Your task to perform on an android device: Open calendar and show me the third week of next month Image 0: 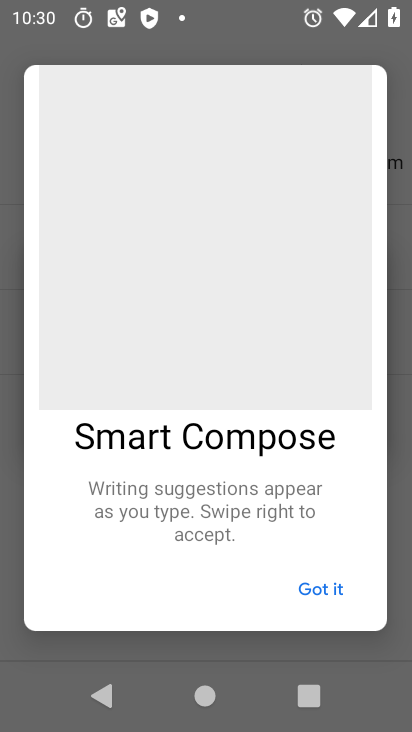
Step 0: press home button
Your task to perform on an android device: Open calendar and show me the third week of next month Image 1: 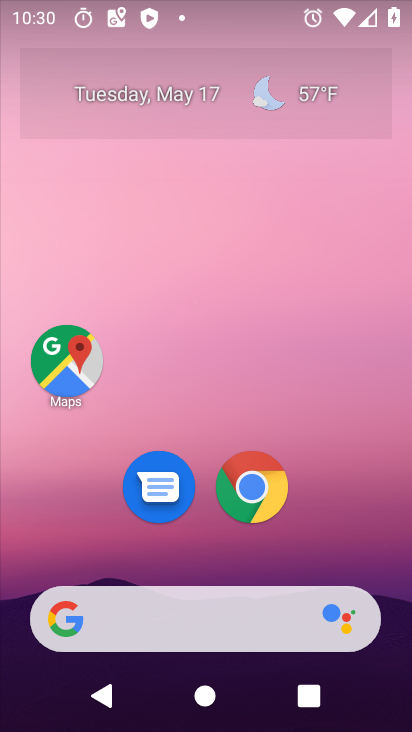
Step 1: drag from (247, 576) to (249, 217)
Your task to perform on an android device: Open calendar and show me the third week of next month Image 2: 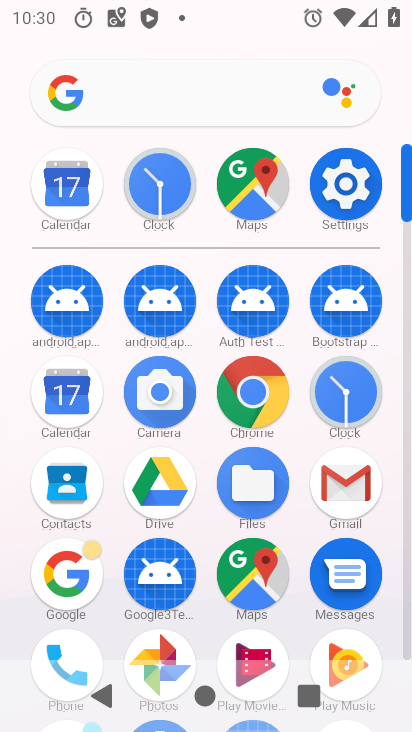
Step 2: click (71, 395)
Your task to perform on an android device: Open calendar and show me the third week of next month Image 3: 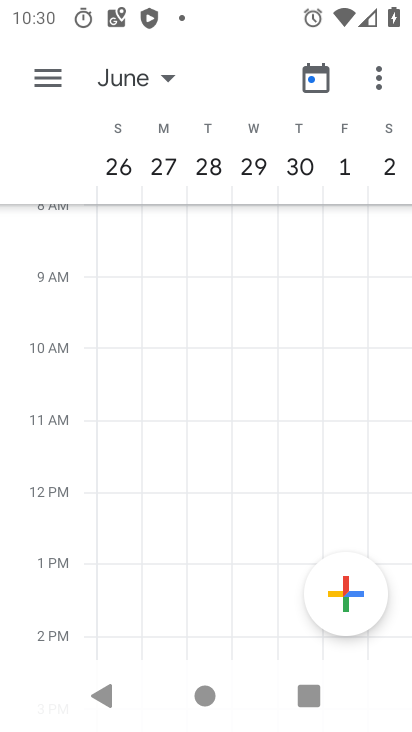
Step 3: click (169, 76)
Your task to perform on an android device: Open calendar and show me the third week of next month Image 4: 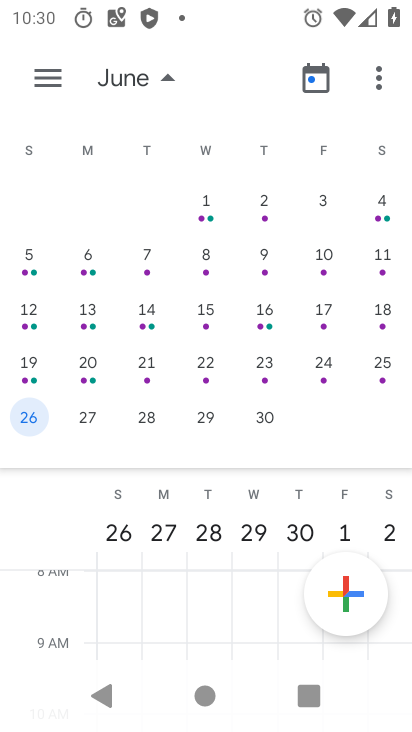
Step 4: click (86, 364)
Your task to perform on an android device: Open calendar and show me the third week of next month Image 5: 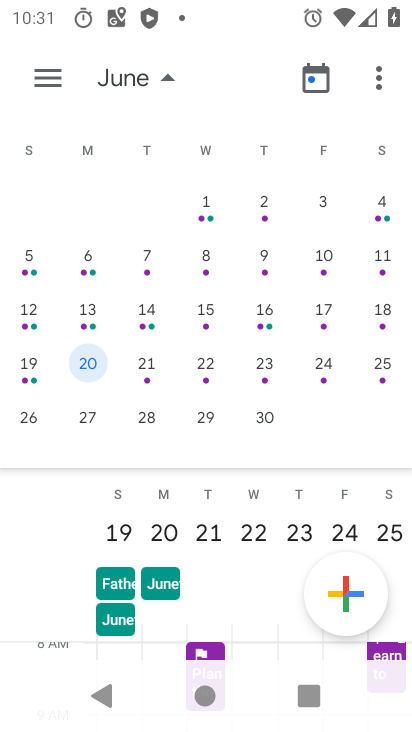
Step 5: task complete